Your task to perform on an android device: refresh tabs in the chrome app Image 0: 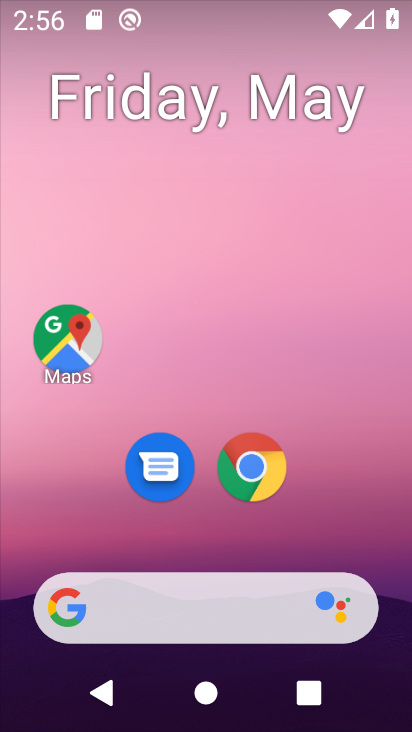
Step 0: click (259, 471)
Your task to perform on an android device: refresh tabs in the chrome app Image 1: 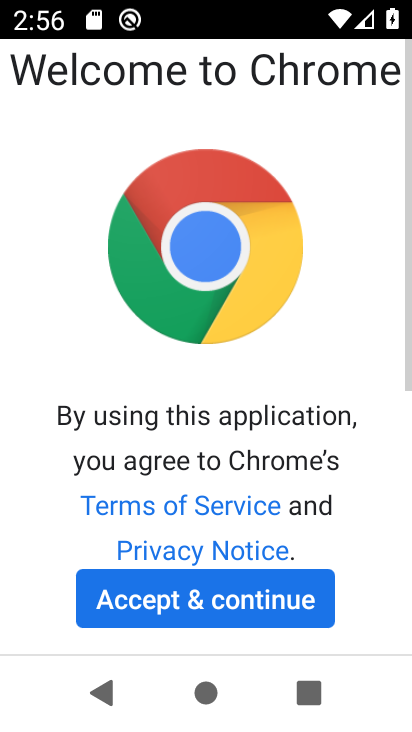
Step 1: click (278, 597)
Your task to perform on an android device: refresh tabs in the chrome app Image 2: 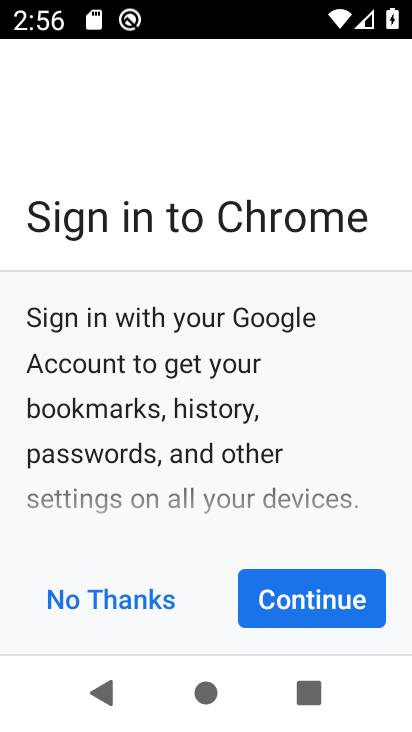
Step 2: click (338, 603)
Your task to perform on an android device: refresh tabs in the chrome app Image 3: 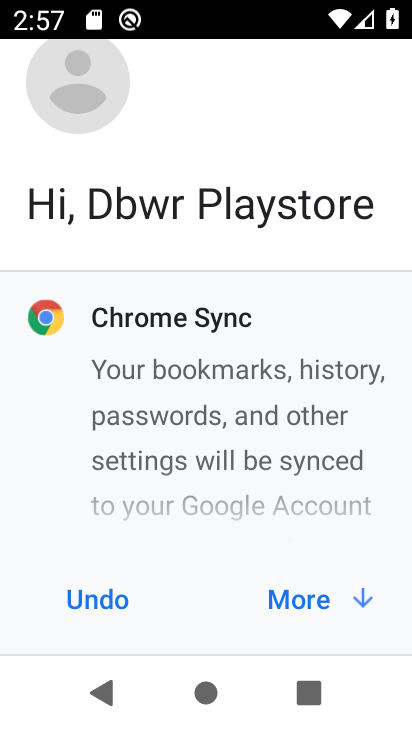
Step 3: click (329, 592)
Your task to perform on an android device: refresh tabs in the chrome app Image 4: 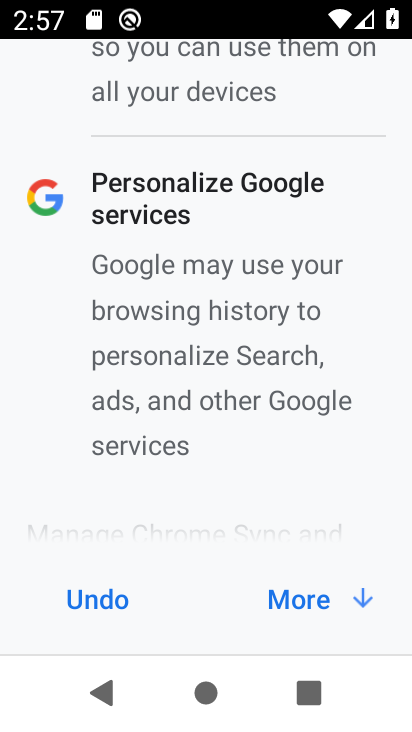
Step 4: click (299, 590)
Your task to perform on an android device: refresh tabs in the chrome app Image 5: 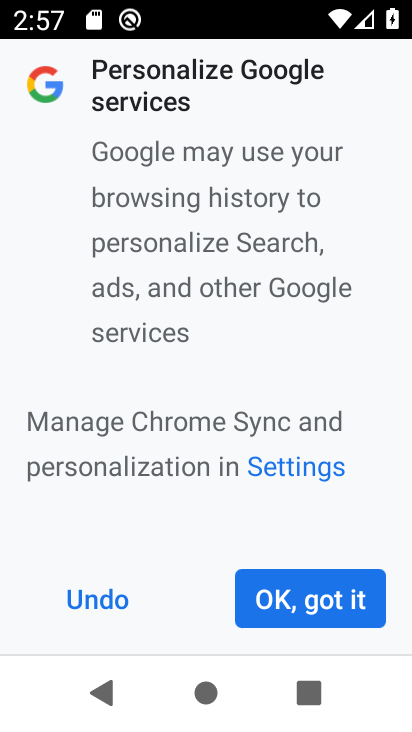
Step 5: click (334, 589)
Your task to perform on an android device: refresh tabs in the chrome app Image 6: 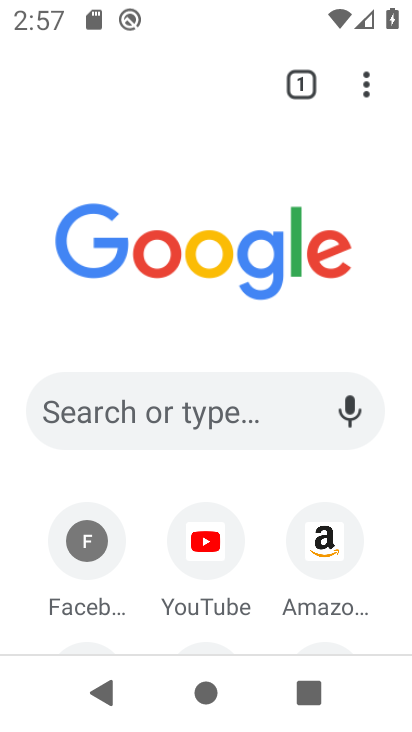
Step 6: click (368, 87)
Your task to perform on an android device: refresh tabs in the chrome app Image 7: 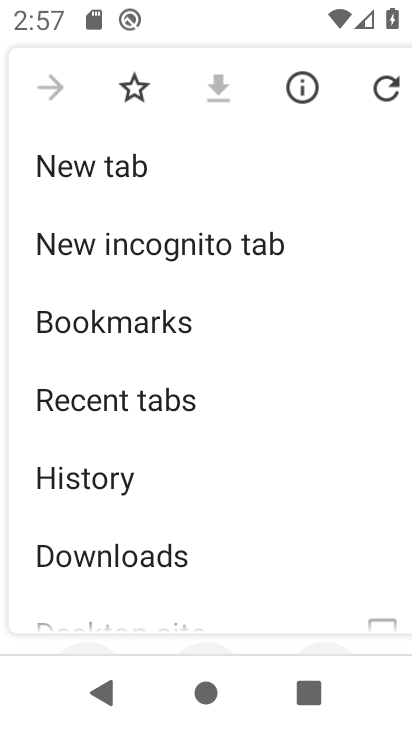
Step 7: click (380, 78)
Your task to perform on an android device: refresh tabs in the chrome app Image 8: 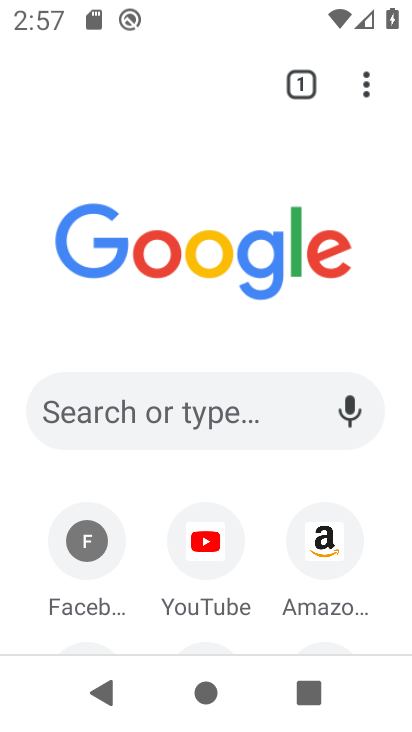
Step 8: task complete